Your task to perform on an android device: turn on javascript in the chrome app Image 0: 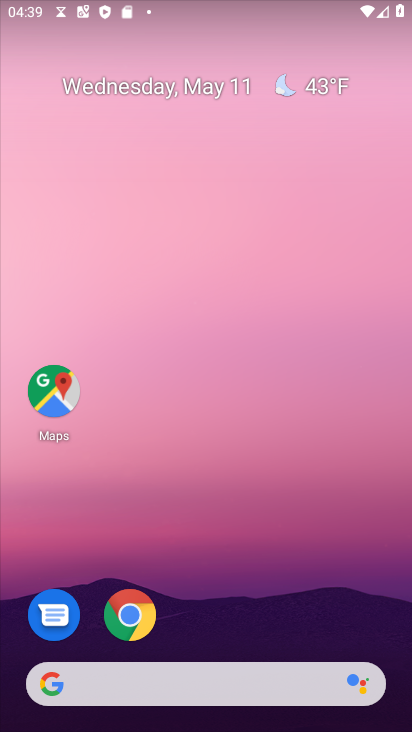
Step 0: drag from (243, 545) to (129, 8)
Your task to perform on an android device: turn on javascript in the chrome app Image 1: 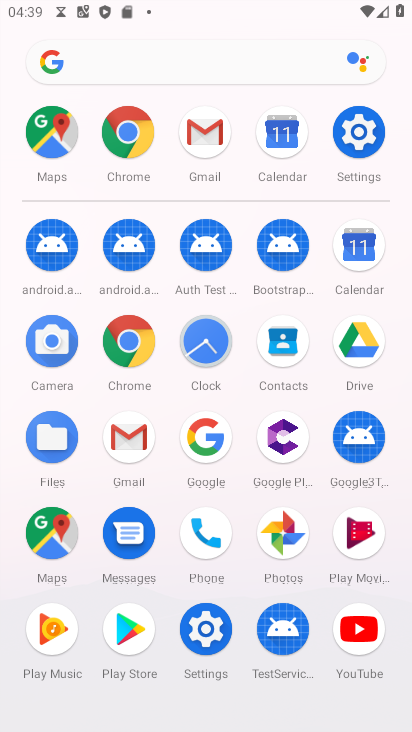
Step 1: drag from (9, 514) to (1, 210)
Your task to perform on an android device: turn on javascript in the chrome app Image 2: 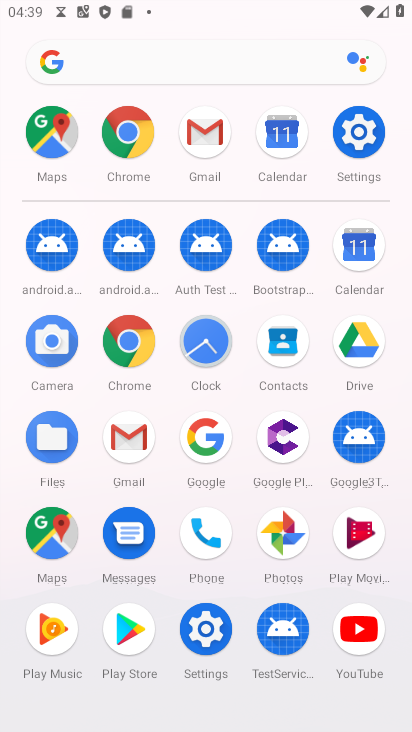
Step 2: click (131, 128)
Your task to perform on an android device: turn on javascript in the chrome app Image 3: 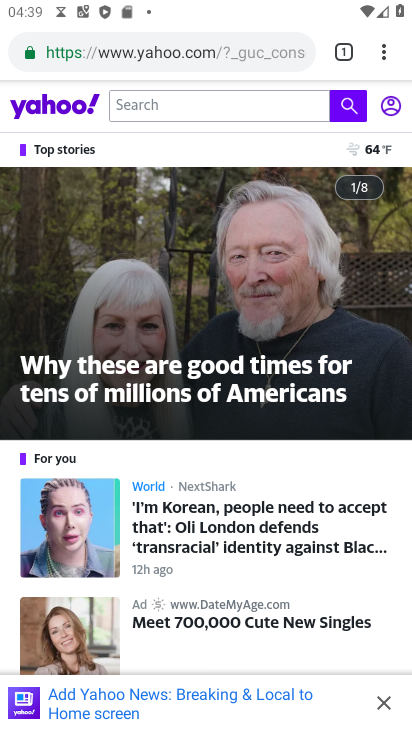
Step 3: click (383, 47)
Your task to perform on an android device: turn on javascript in the chrome app Image 4: 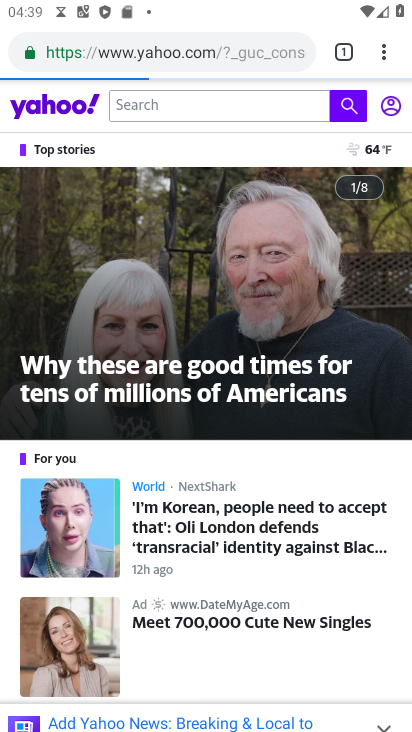
Step 4: drag from (384, 51) to (211, 628)
Your task to perform on an android device: turn on javascript in the chrome app Image 5: 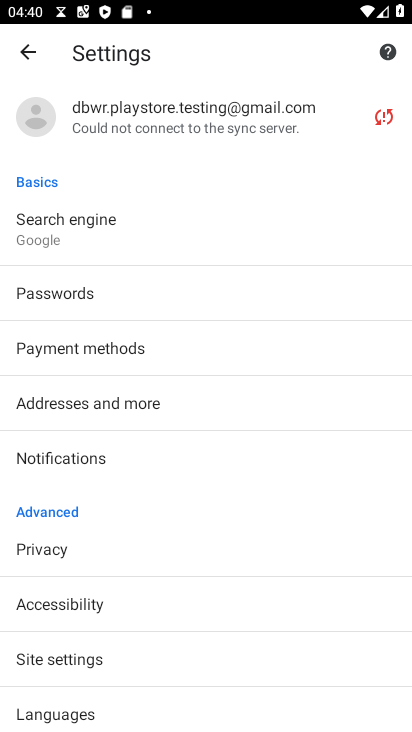
Step 5: drag from (266, 540) to (295, 160)
Your task to perform on an android device: turn on javascript in the chrome app Image 6: 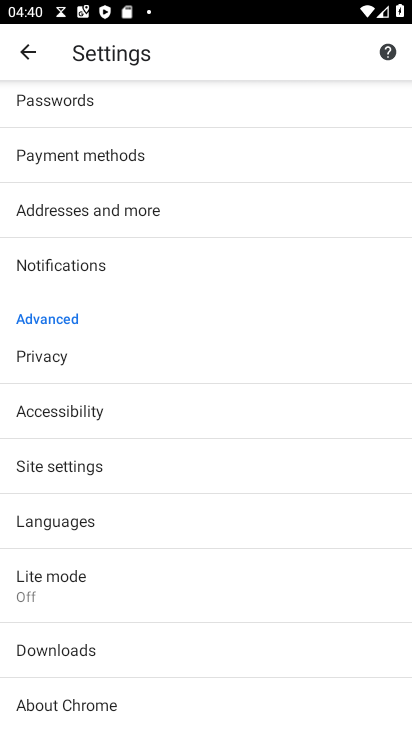
Step 6: click (77, 463)
Your task to perform on an android device: turn on javascript in the chrome app Image 7: 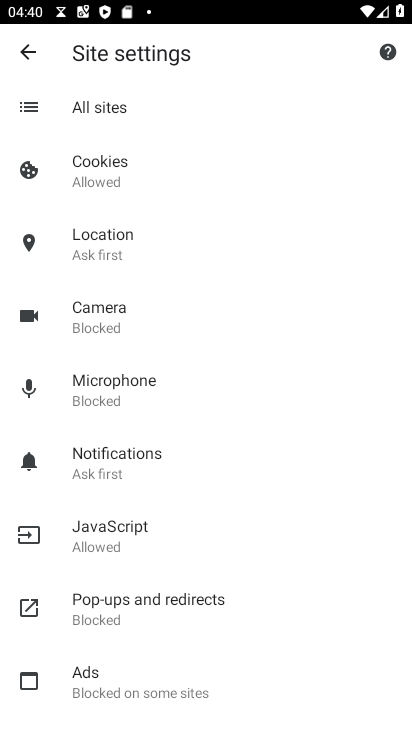
Step 7: click (133, 548)
Your task to perform on an android device: turn on javascript in the chrome app Image 8: 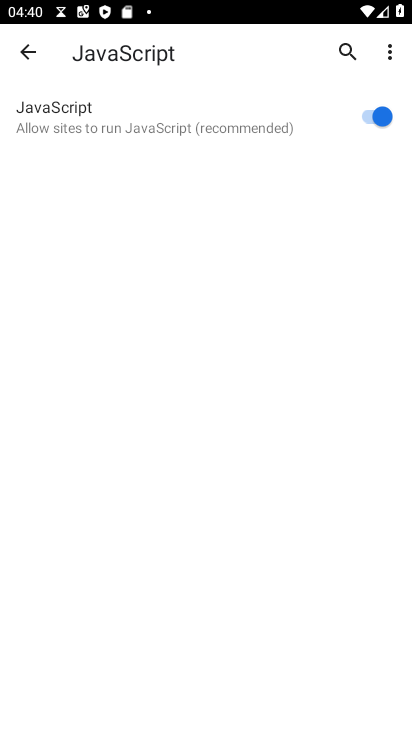
Step 8: task complete